Your task to perform on an android device: open app "Google Chrome" Image 0: 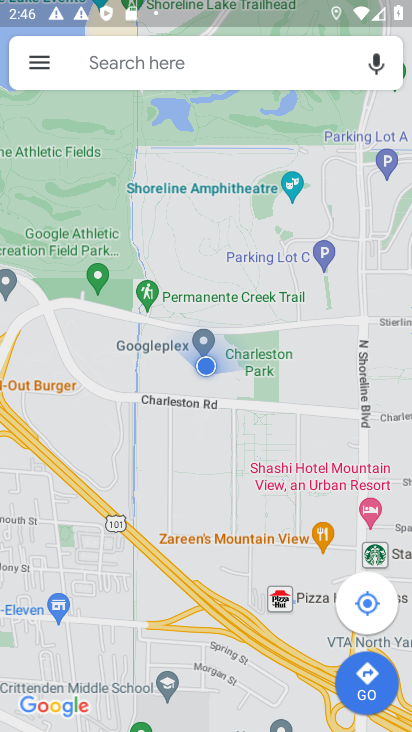
Step 0: press home button
Your task to perform on an android device: open app "Google Chrome" Image 1: 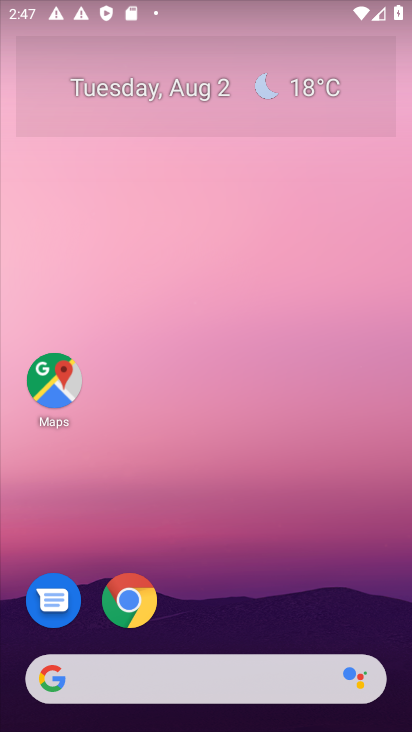
Step 1: click (144, 608)
Your task to perform on an android device: open app "Google Chrome" Image 2: 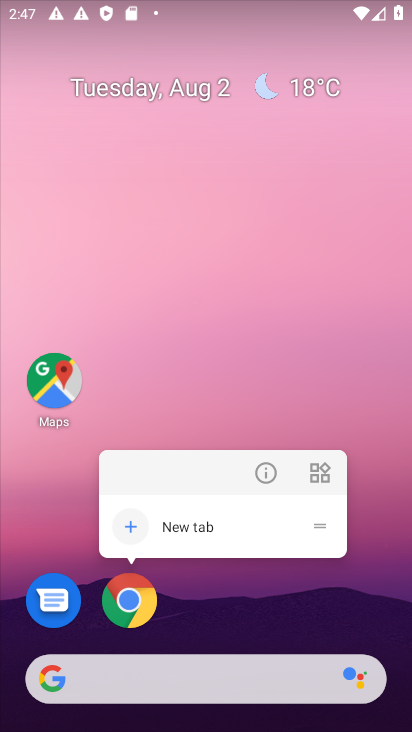
Step 2: click (144, 608)
Your task to perform on an android device: open app "Google Chrome" Image 3: 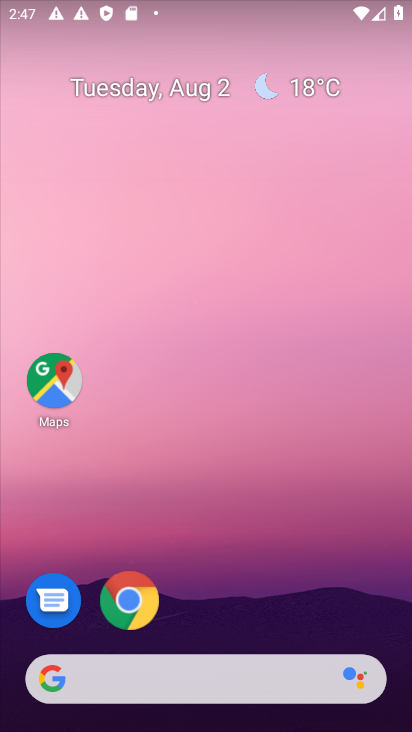
Step 3: click (144, 608)
Your task to perform on an android device: open app "Google Chrome" Image 4: 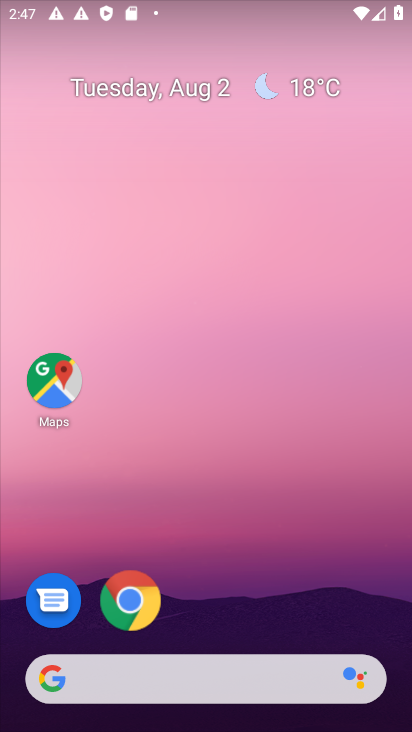
Step 4: click (144, 608)
Your task to perform on an android device: open app "Google Chrome" Image 5: 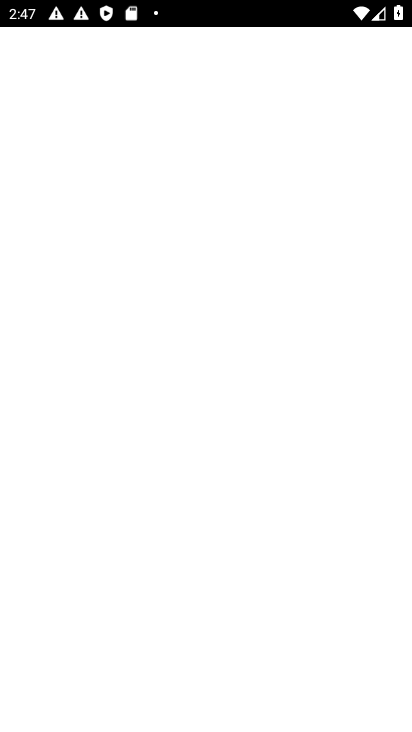
Step 5: click (144, 608)
Your task to perform on an android device: open app "Google Chrome" Image 6: 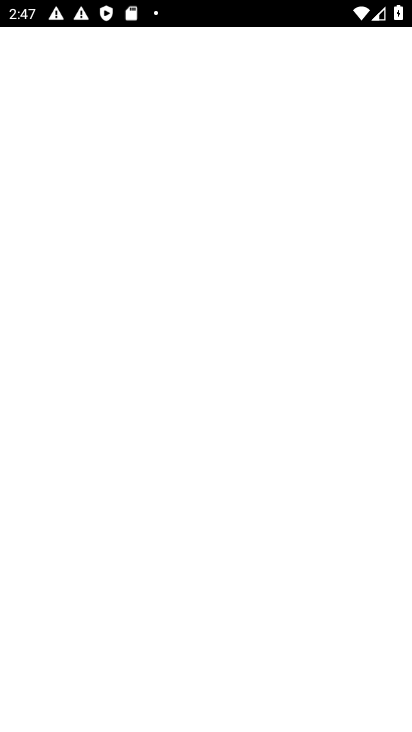
Step 6: click (144, 608)
Your task to perform on an android device: open app "Google Chrome" Image 7: 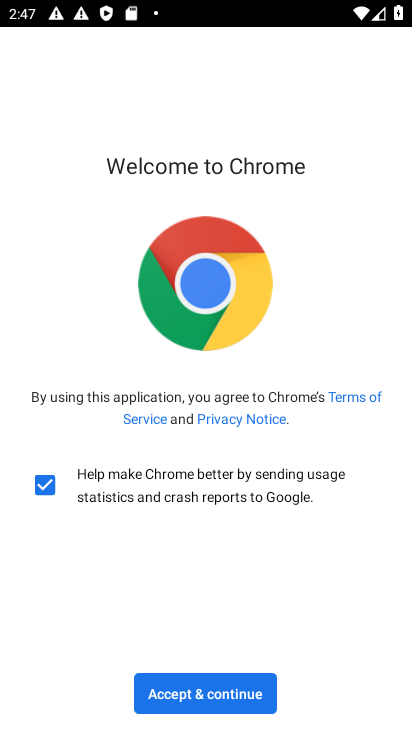
Step 7: click (212, 693)
Your task to perform on an android device: open app "Google Chrome" Image 8: 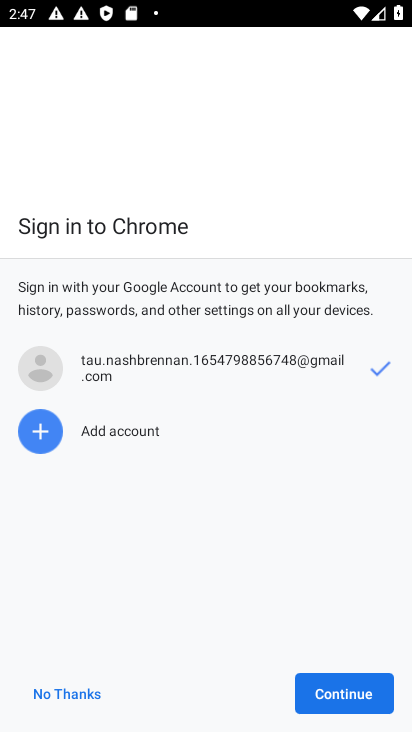
Step 8: click (347, 702)
Your task to perform on an android device: open app "Google Chrome" Image 9: 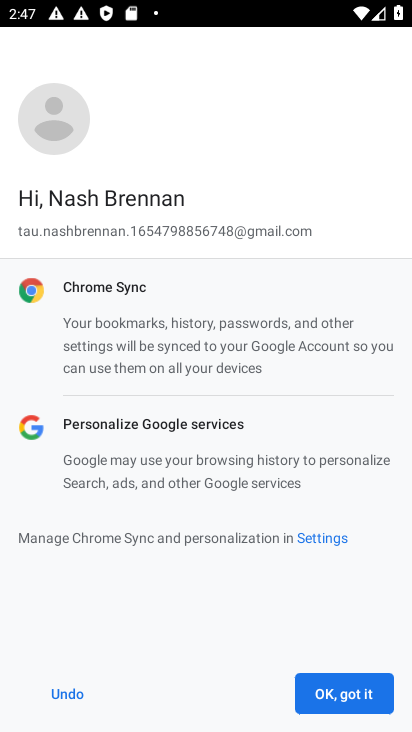
Step 9: click (347, 702)
Your task to perform on an android device: open app "Google Chrome" Image 10: 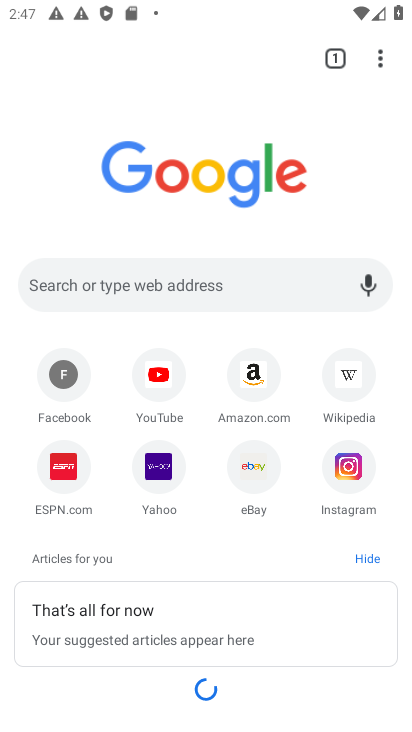
Step 10: task complete